Your task to perform on an android device: move a message to another label in the gmail app Image 0: 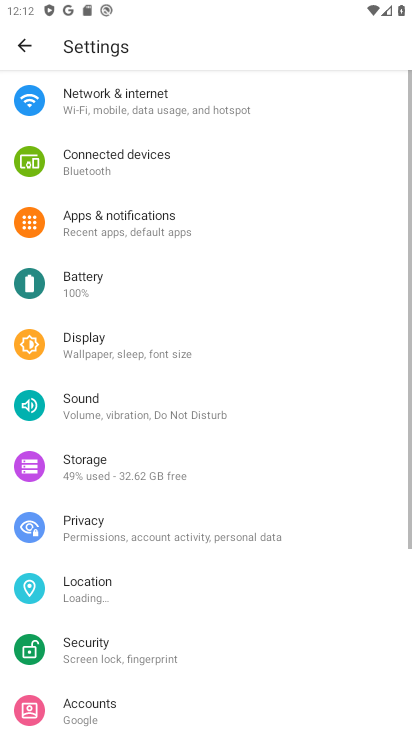
Step 0: press home button
Your task to perform on an android device: move a message to another label in the gmail app Image 1: 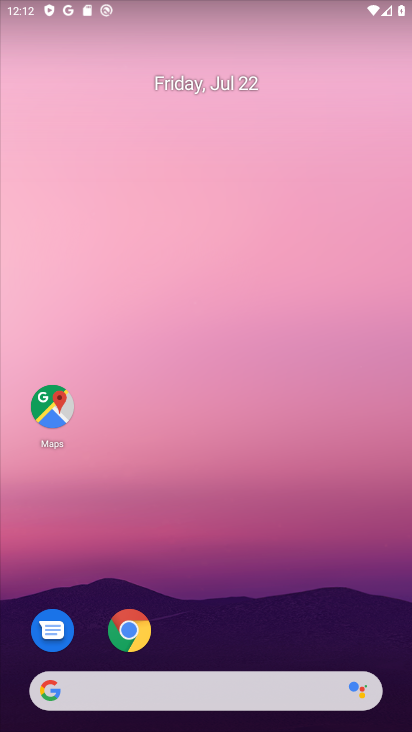
Step 1: drag from (203, 645) to (207, 52)
Your task to perform on an android device: move a message to another label in the gmail app Image 2: 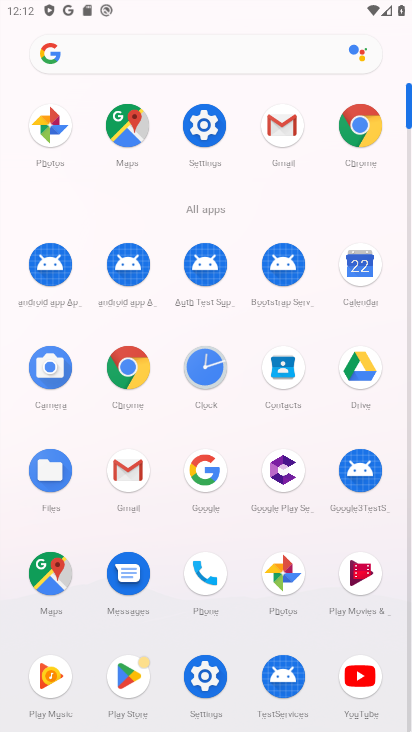
Step 2: click (276, 125)
Your task to perform on an android device: move a message to another label in the gmail app Image 3: 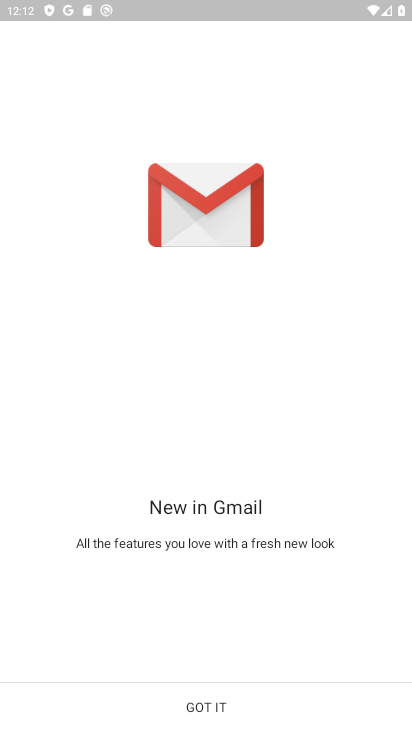
Step 3: click (204, 714)
Your task to perform on an android device: move a message to another label in the gmail app Image 4: 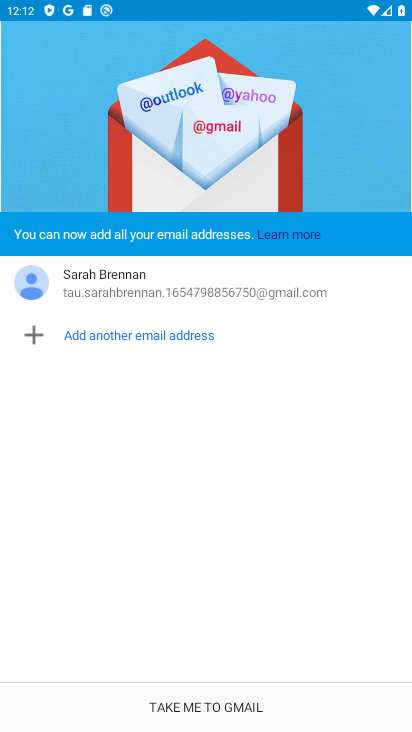
Step 4: click (204, 714)
Your task to perform on an android device: move a message to another label in the gmail app Image 5: 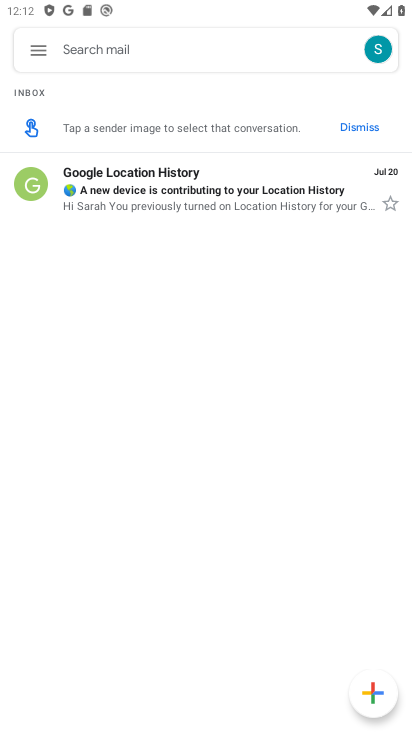
Step 5: click (178, 186)
Your task to perform on an android device: move a message to another label in the gmail app Image 6: 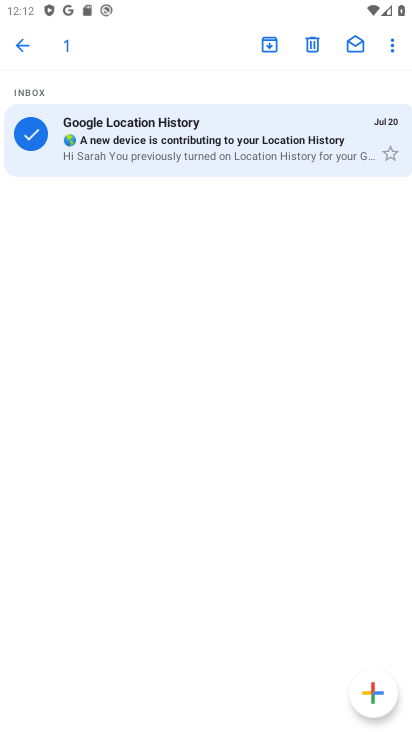
Step 6: click (386, 46)
Your task to perform on an android device: move a message to another label in the gmail app Image 7: 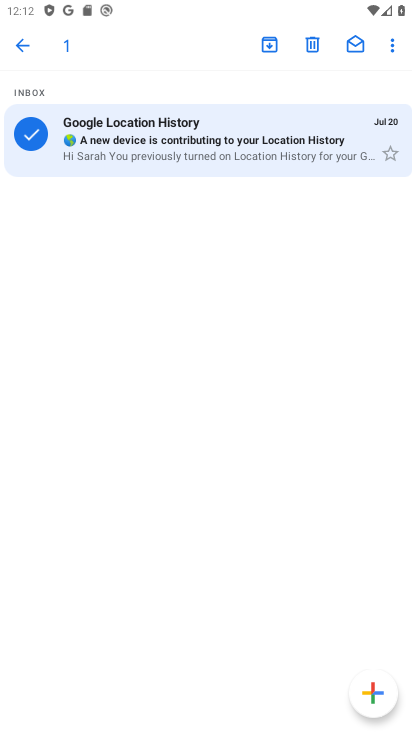
Step 7: click (388, 48)
Your task to perform on an android device: move a message to another label in the gmail app Image 8: 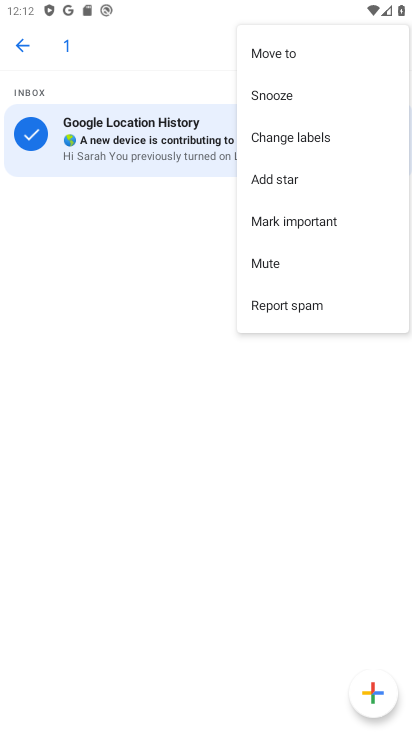
Step 8: click (285, 133)
Your task to perform on an android device: move a message to another label in the gmail app Image 9: 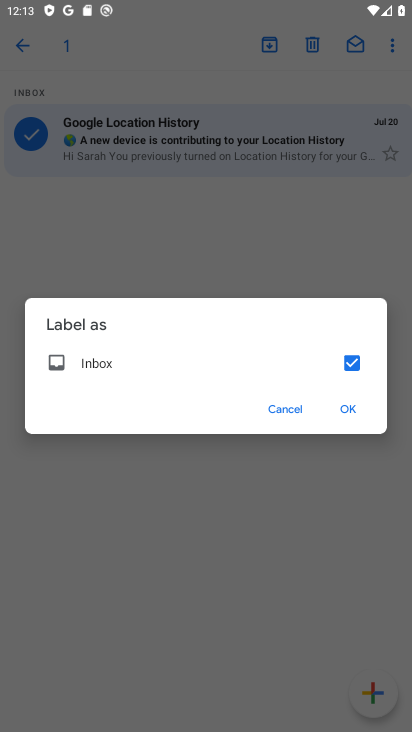
Step 9: click (349, 365)
Your task to perform on an android device: move a message to another label in the gmail app Image 10: 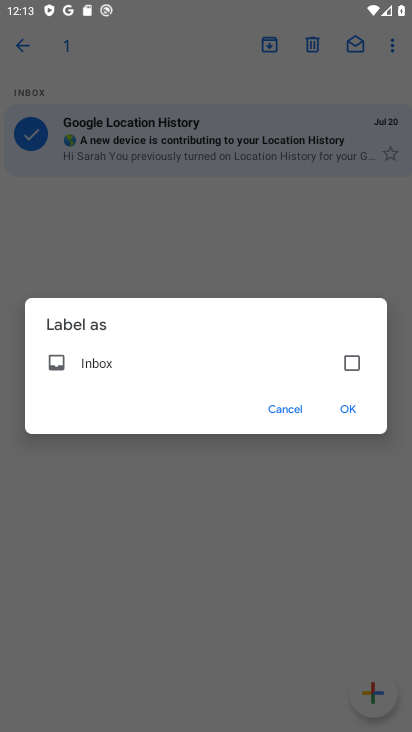
Step 10: click (347, 410)
Your task to perform on an android device: move a message to another label in the gmail app Image 11: 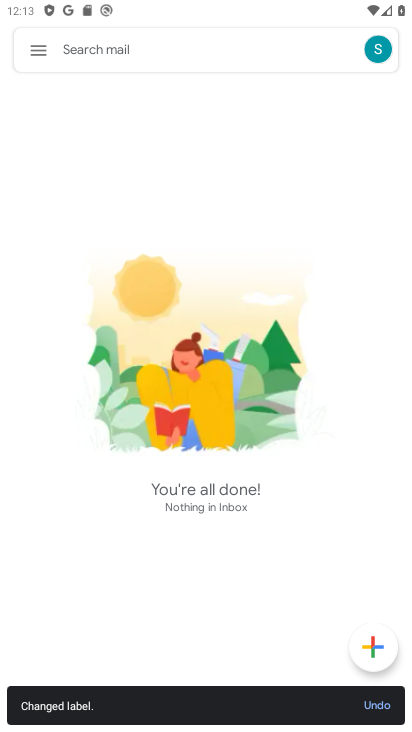
Step 11: task complete